Your task to perform on an android device: turn pop-ups off in chrome Image 0: 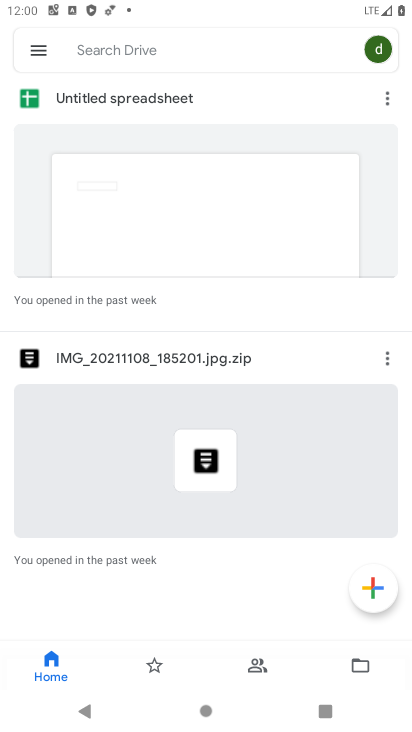
Step 0: press home button
Your task to perform on an android device: turn pop-ups off in chrome Image 1: 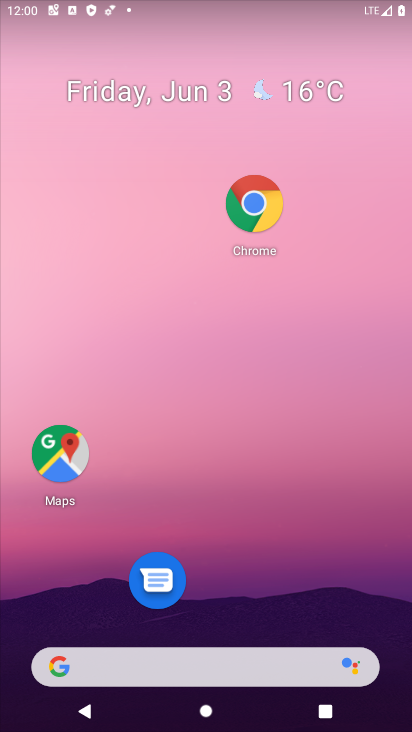
Step 1: drag from (311, 282) to (311, 193)
Your task to perform on an android device: turn pop-ups off in chrome Image 2: 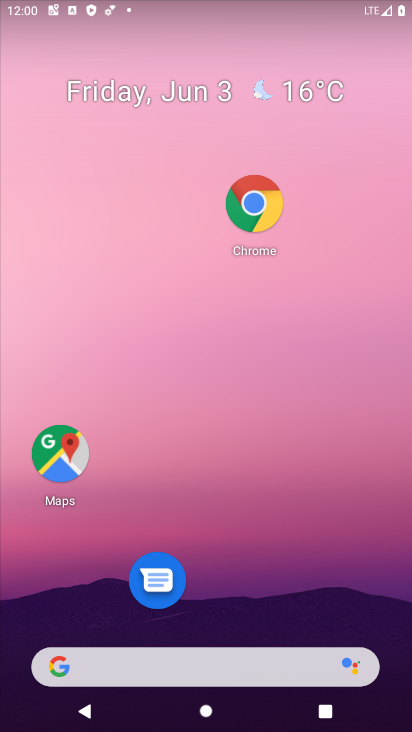
Step 2: drag from (265, 502) to (284, 257)
Your task to perform on an android device: turn pop-ups off in chrome Image 3: 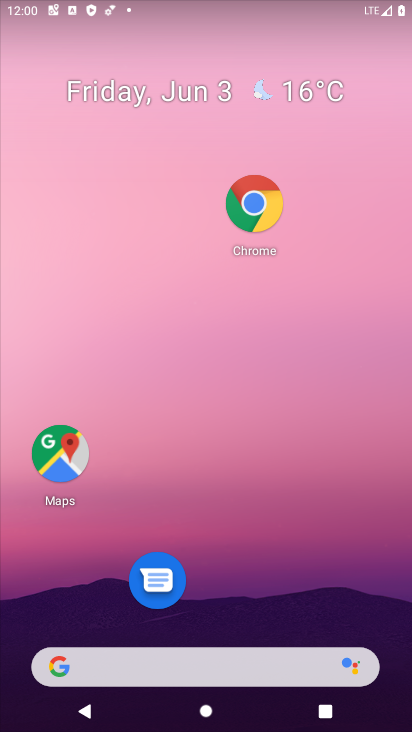
Step 3: drag from (211, 591) to (252, 248)
Your task to perform on an android device: turn pop-ups off in chrome Image 4: 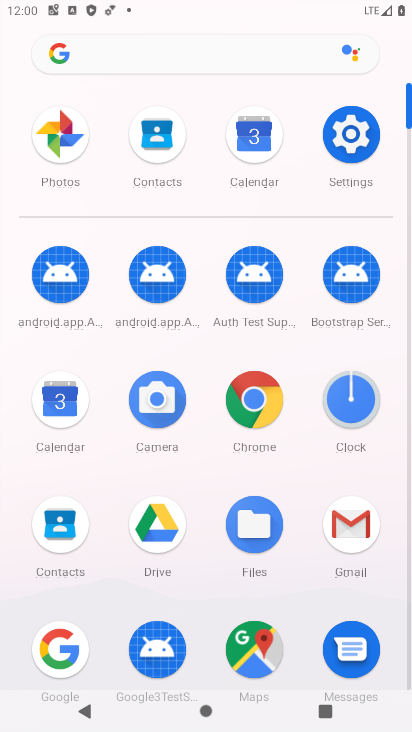
Step 4: click (258, 426)
Your task to perform on an android device: turn pop-ups off in chrome Image 5: 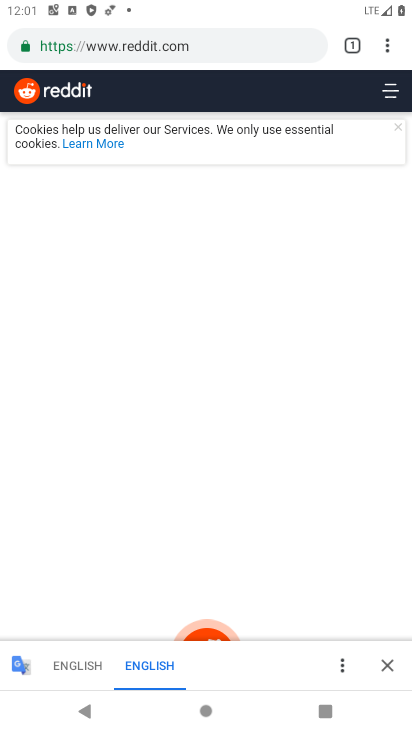
Step 5: click (394, 41)
Your task to perform on an android device: turn pop-ups off in chrome Image 6: 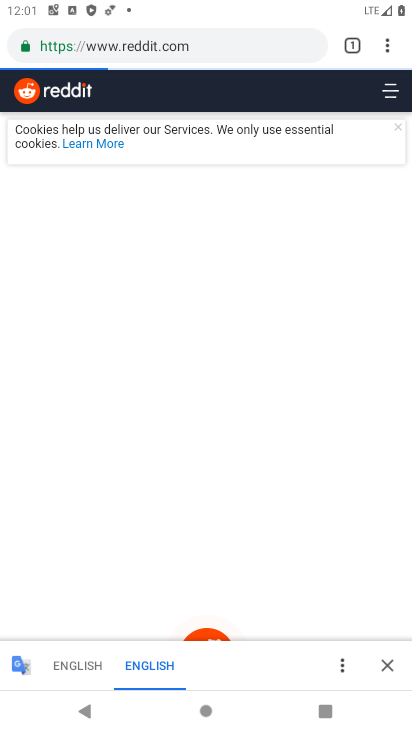
Step 6: click (389, 45)
Your task to perform on an android device: turn pop-ups off in chrome Image 7: 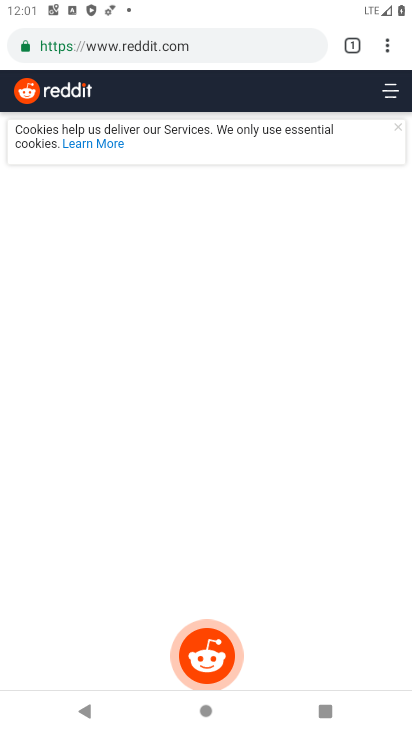
Step 7: click (396, 39)
Your task to perform on an android device: turn pop-ups off in chrome Image 8: 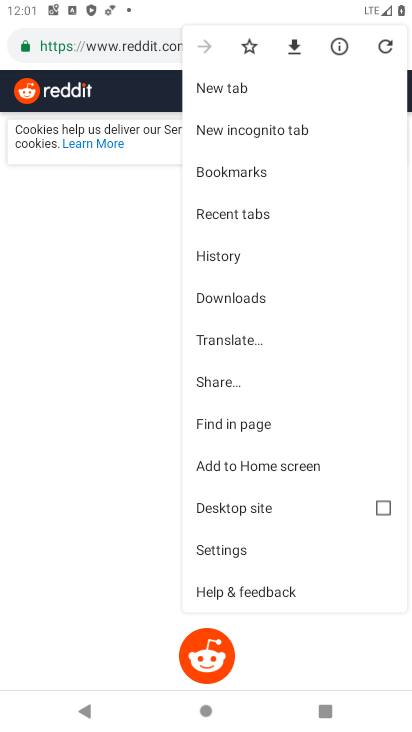
Step 8: click (233, 548)
Your task to perform on an android device: turn pop-ups off in chrome Image 9: 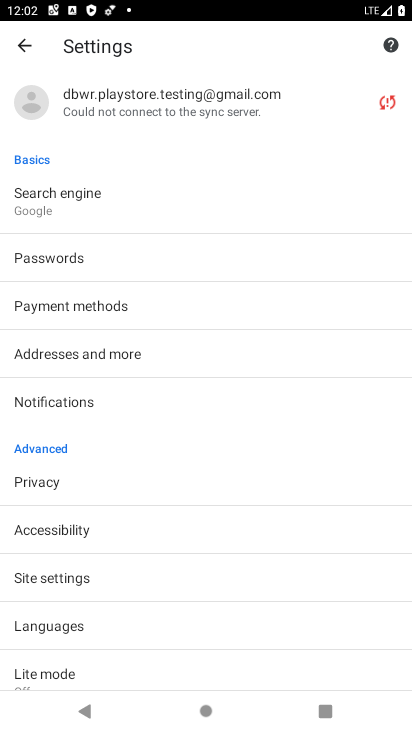
Step 9: click (86, 585)
Your task to perform on an android device: turn pop-ups off in chrome Image 10: 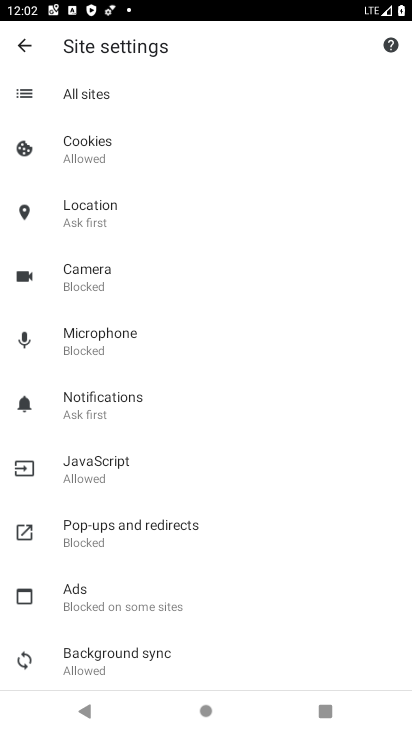
Step 10: click (170, 539)
Your task to perform on an android device: turn pop-ups off in chrome Image 11: 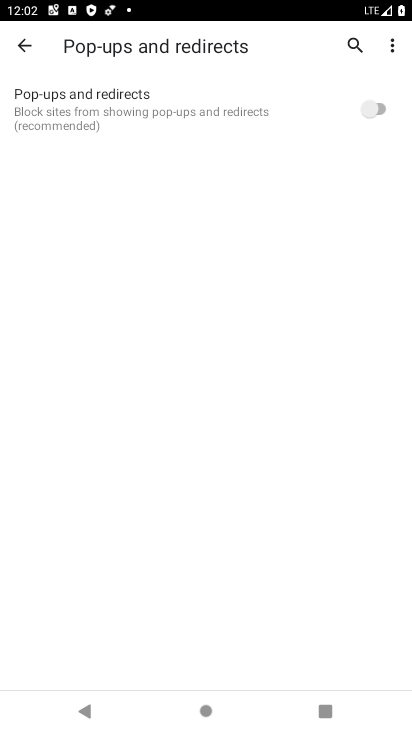
Step 11: task complete